Your task to perform on an android device: snooze an email in the gmail app Image 0: 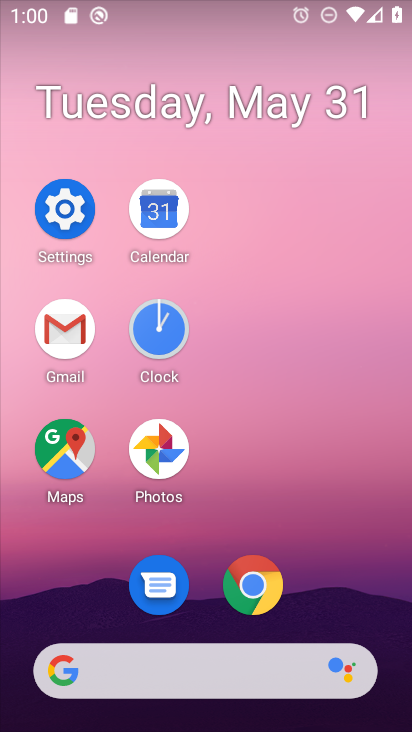
Step 0: click (52, 333)
Your task to perform on an android device: snooze an email in the gmail app Image 1: 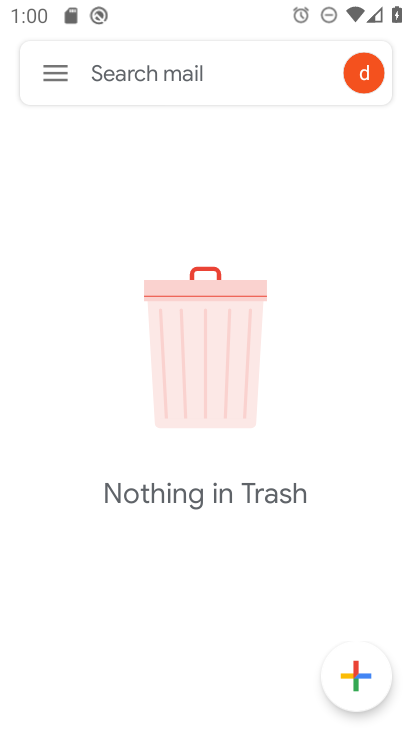
Step 1: click (65, 82)
Your task to perform on an android device: snooze an email in the gmail app Image 2: 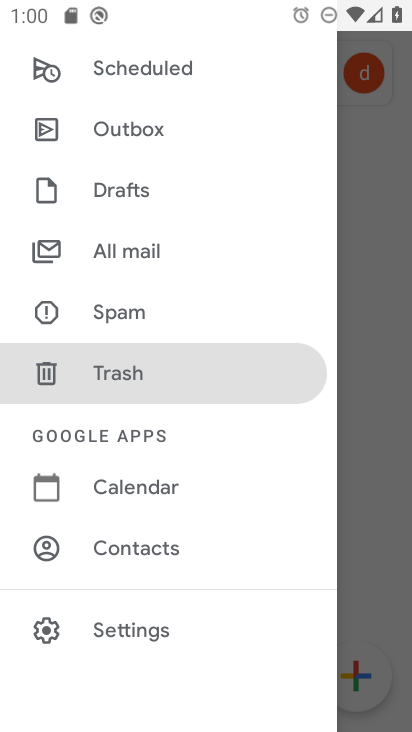
Step 2: drag from (217, 173) to (247, 626)
Your task to perform on an android device: snooze an email in the gmail app Image 3: 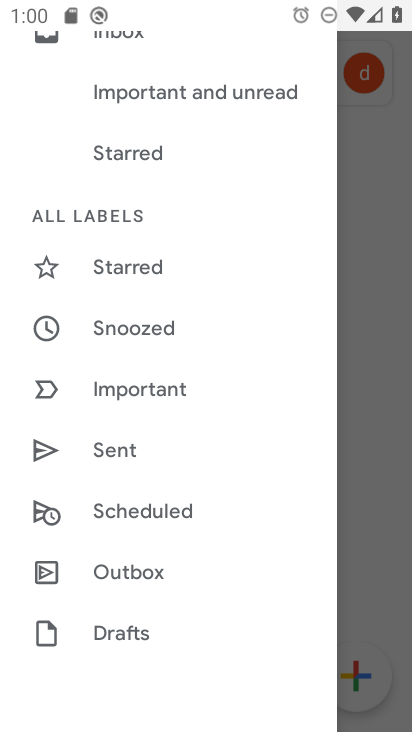
Step 3: drag from (222, 555) to (217, 218)
Your task to perform on an android device: snooze an email in the gmail app Image 4: 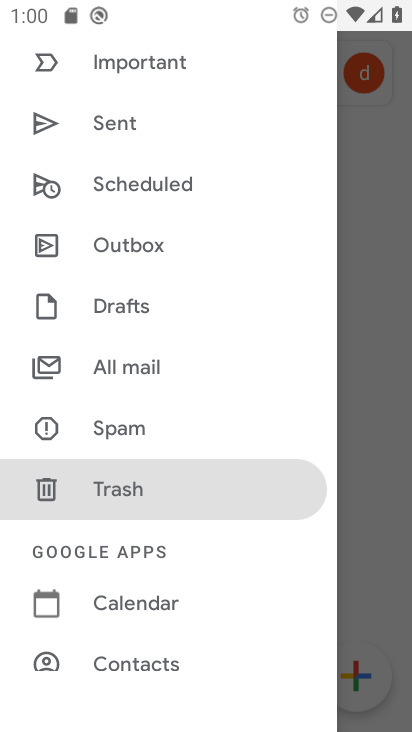
Step 4: click (185, 373)
Your task to perform on an android device: snooze an email in the gmail app Image 5: 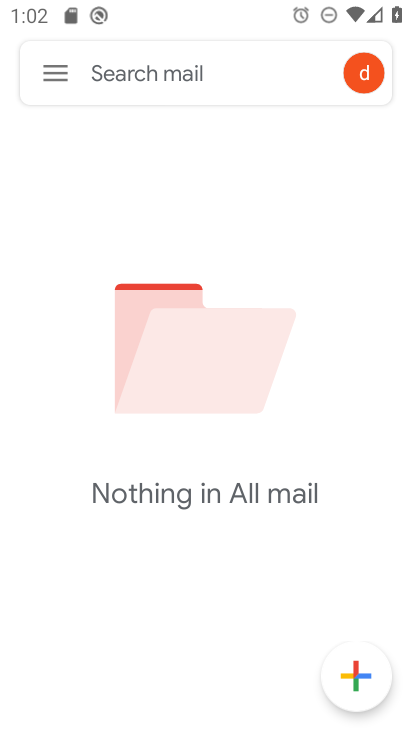
Step 5: task complete